Your task to perform on an android device: open chrome and create a bookmark for the current page Image 0: 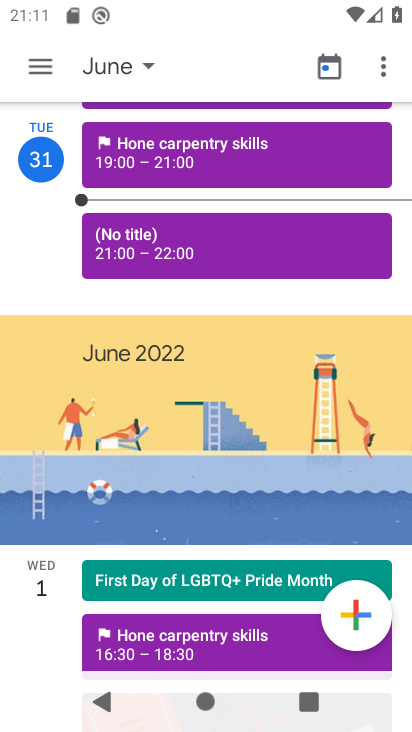
Step 0: press home button
Your task to perform on an android device: open chrome and create a bookmark for the current page Image 1: 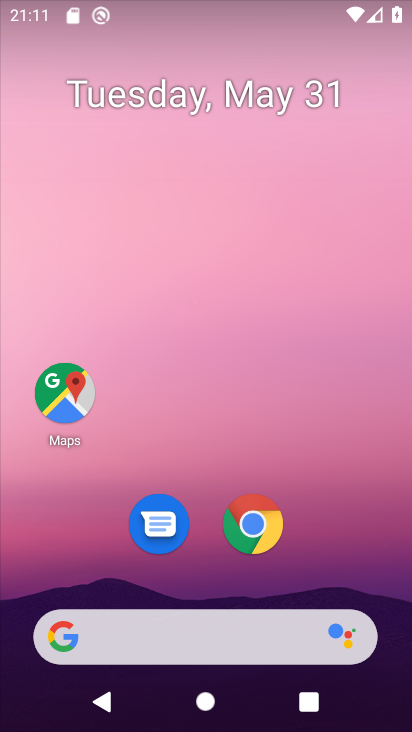
Step 1: click (252, 521)
Your task to perform on an android device: open chrome and create a bookmark for the current page Image 2: 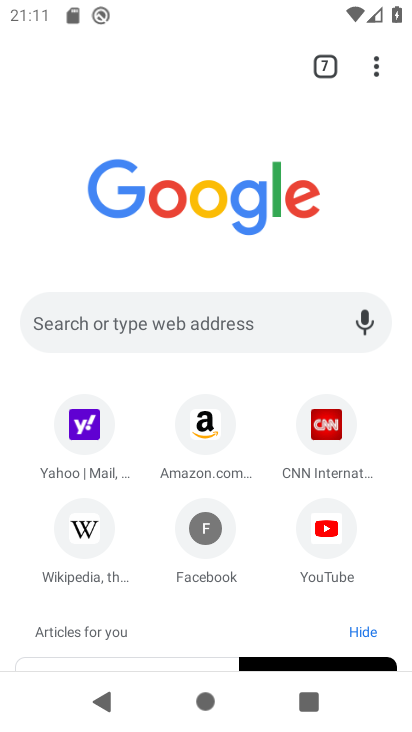
Step 2: click (378, 70)
Your task to perform on an android device: open chrome and create a bookmark for the current page Image 3: 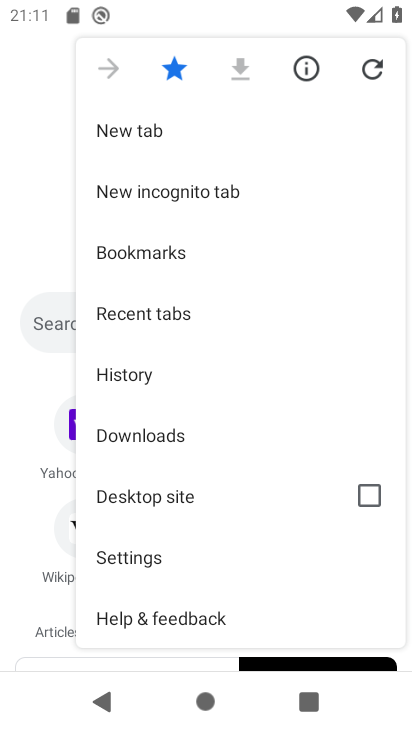
Step 3: task complete